Your task to perform on an android device: Open Google Maps Image 0: 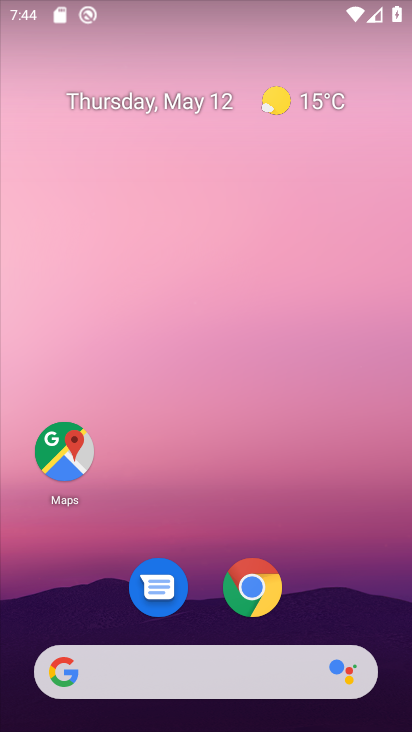
Step 0: drag from (388, 610) to (334, 102)
Your task to perform on an android device: Open Google Maps Image 1: 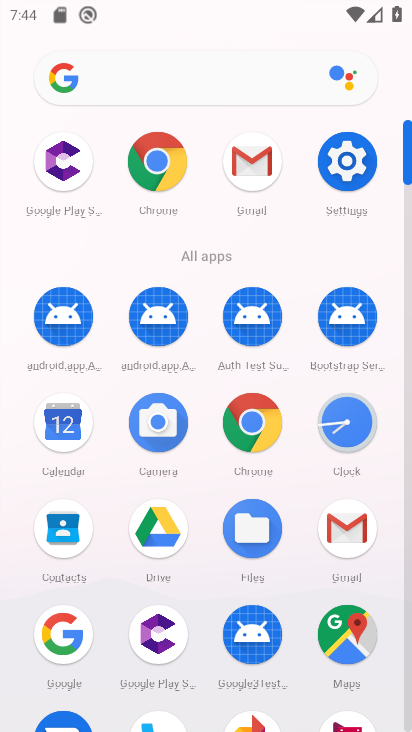
Step 1: click (359, 644)
Your task to perform on an android device: Open Google Maps Image 2: 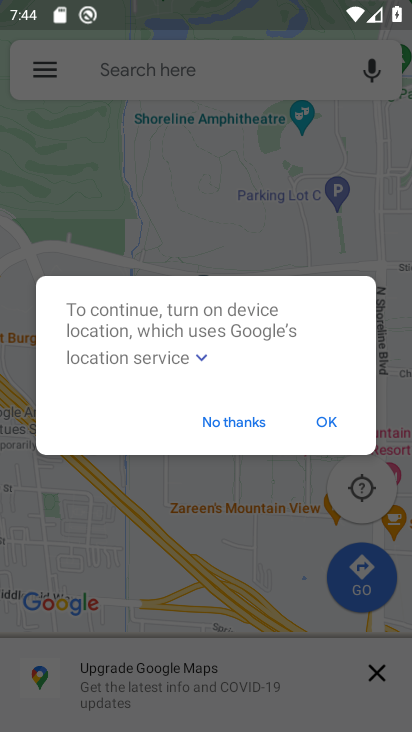
Step 2: click (247, 416)
Your task to perform on an android device: Open Google Maps Image 3: 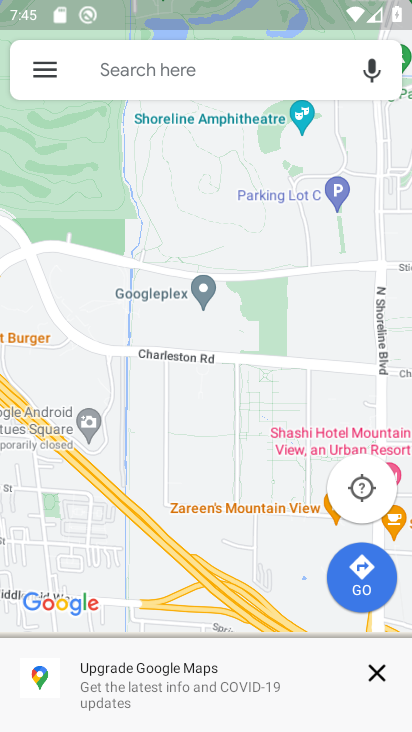
Step 3: task complete